Your task to perform on an android device: toggle data saver in the chrome app Image 0: 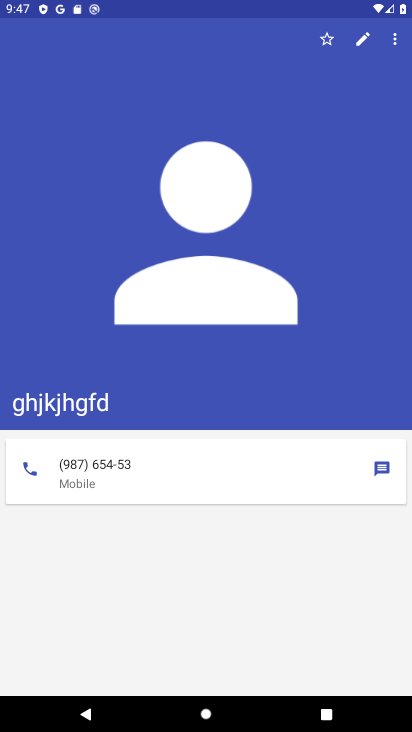
Step 0: press home button
Your task to perform on an android device: toggle data saver in the chrome app Image 1: 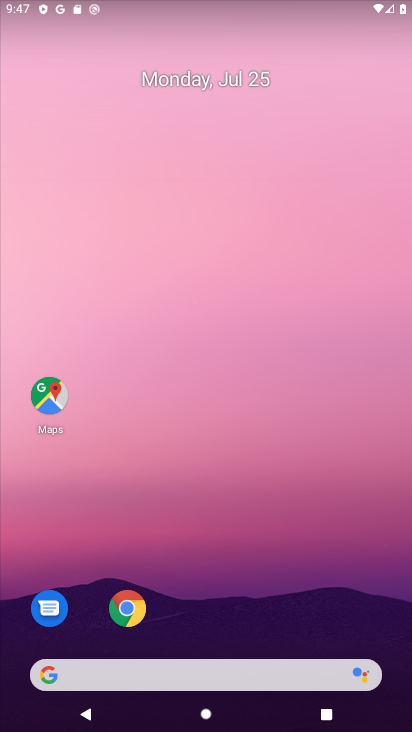
Step 1: drag from (197, 661) to (246, 18)
Your task to perform on an android device: toggle data saver in the chrome app Image 2: 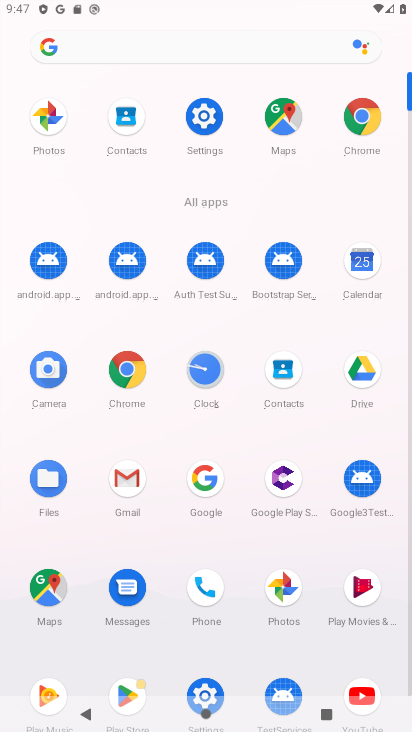
Step 2: click (353, 144)
Your task to perform on an android device: toggle data saver in the chrome app Image 3: 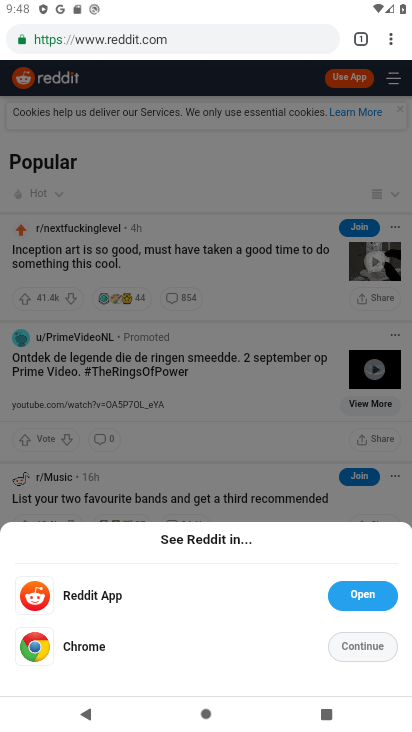
Step 3: click (390, 38)
Your task to perform on an android device: toggle data saver in the chrome app Image 4: 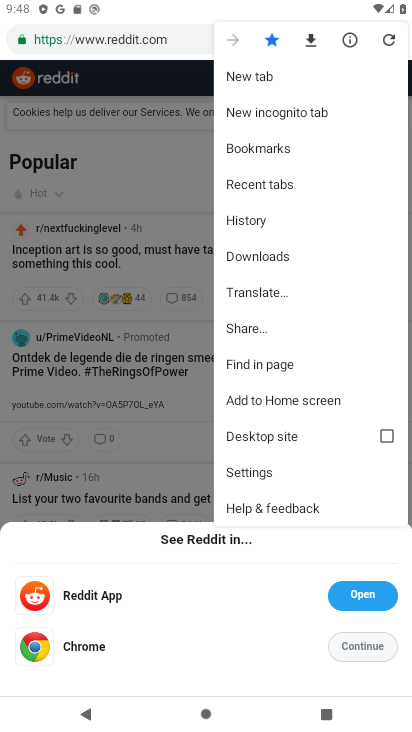
Step 4: click (248, 466)
Your task to perform on an android device: toggle data saver in the chrome app Image 5: 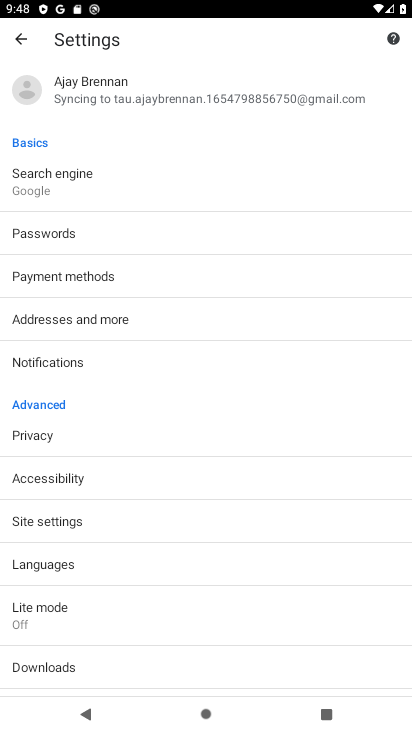
Step 5: click (63, 520)
Your task to perform on an android device: toggle data saver in the chrome app Image 6: 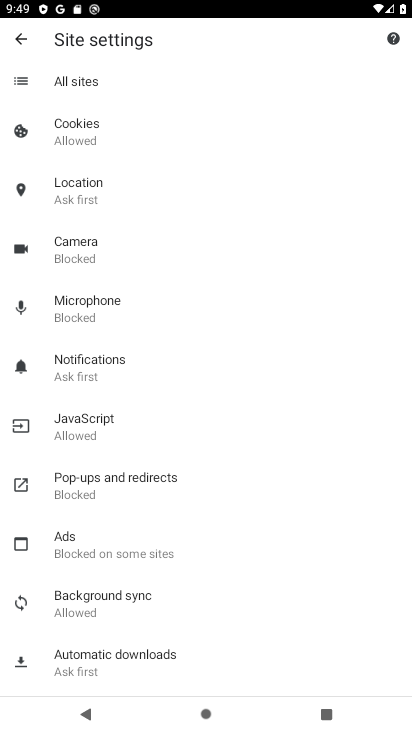
Step 6: drag from (81, 581) to (79, 200)
Your task to perform on an android device: toggle data saver in the chrome app Image 7: 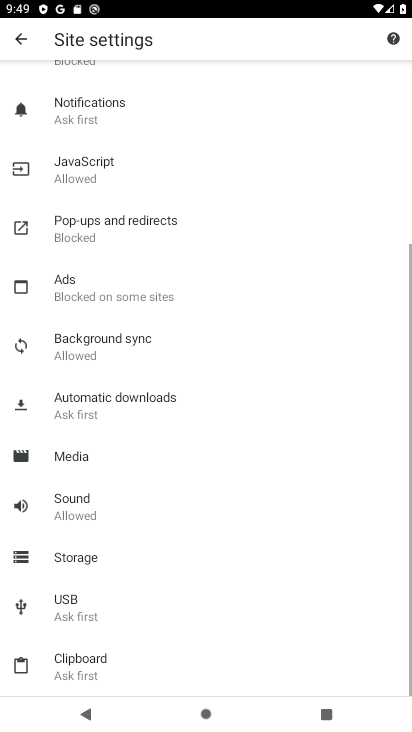
Step 7: click (25, 43)
Your task to perform on an android device: toggle data saver in the chrome app Image 8: 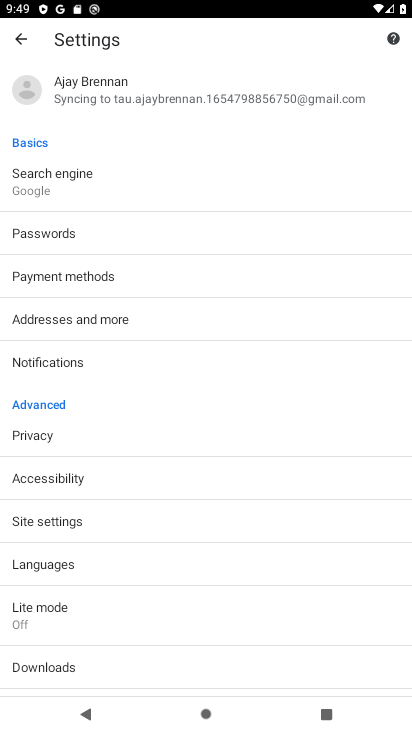
Step 8: click (67, 622)
Your task to perform on an android device: toggle data saver in the chrome app Image 9: 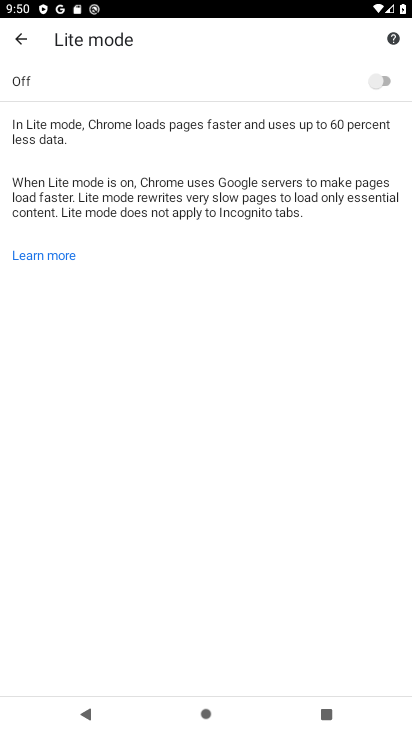
Step 9: click (376, 73)
Your task to perform on an android device: toggle data saver in the chrome app Image 10: 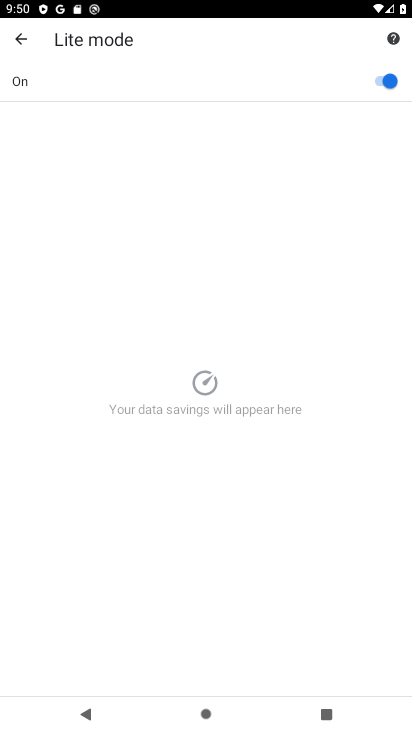
Step 10: task complete